Your task to perform on an android device: delete location history Image 0: 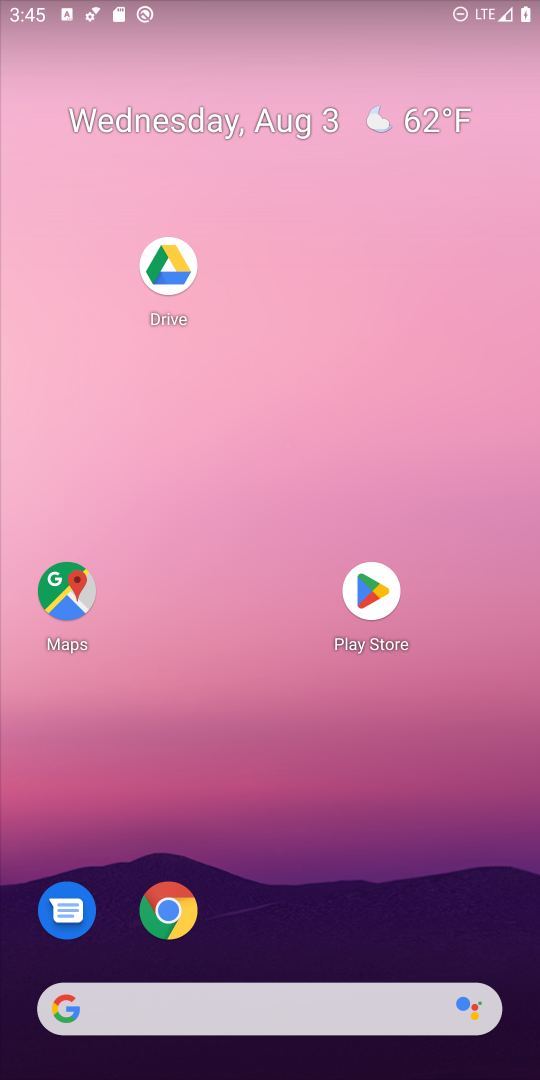
Step 0: drag from (385, 849) to (473, 2)
Your task to perform on an android device: delete location history Image 1: 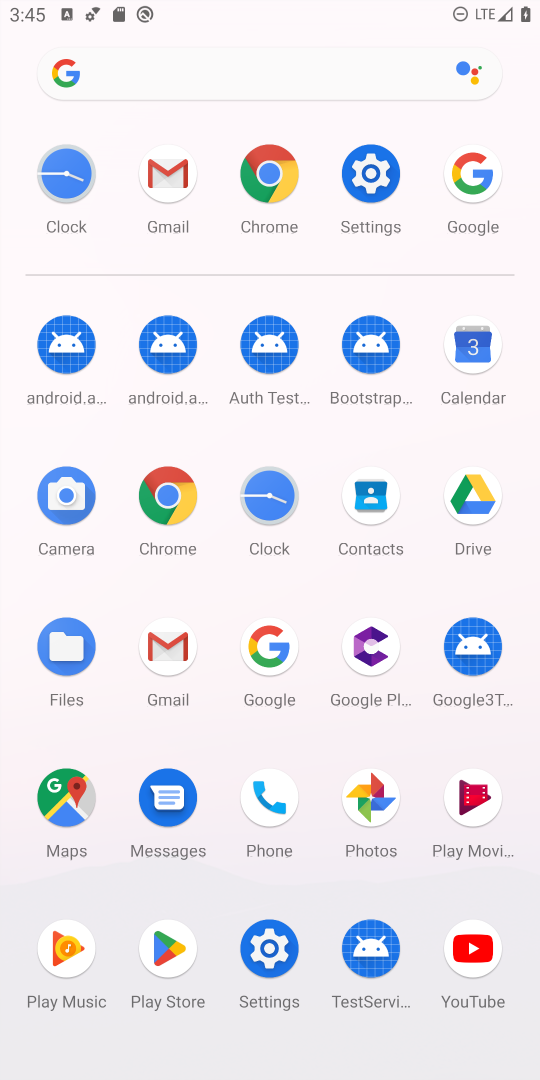
Step 1: click (57, 775)
Your task to perform on an android device: delete location history Image 2: 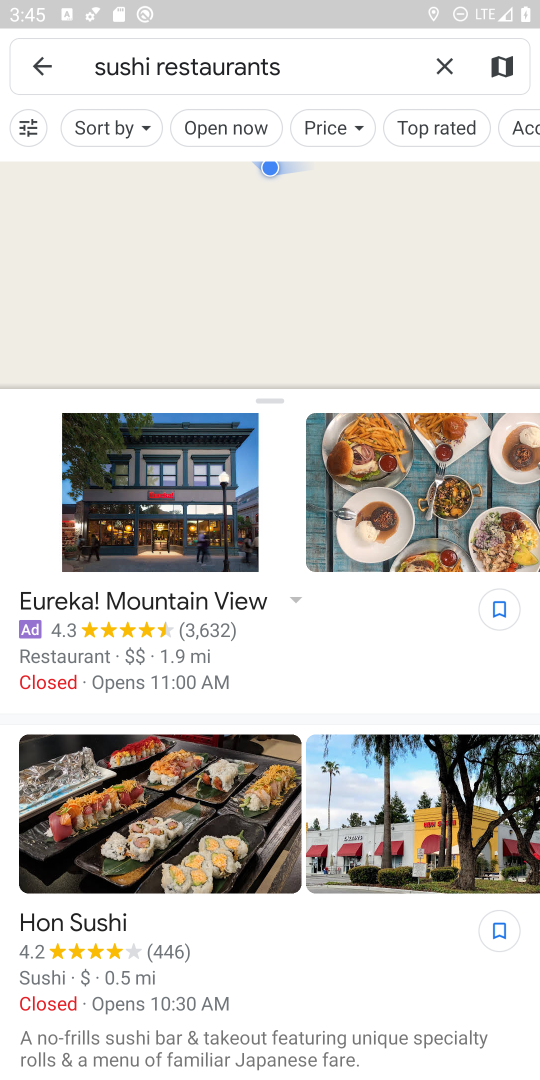
Step 2: press back button
Your task to perform on an android device: delete location history Image 3: 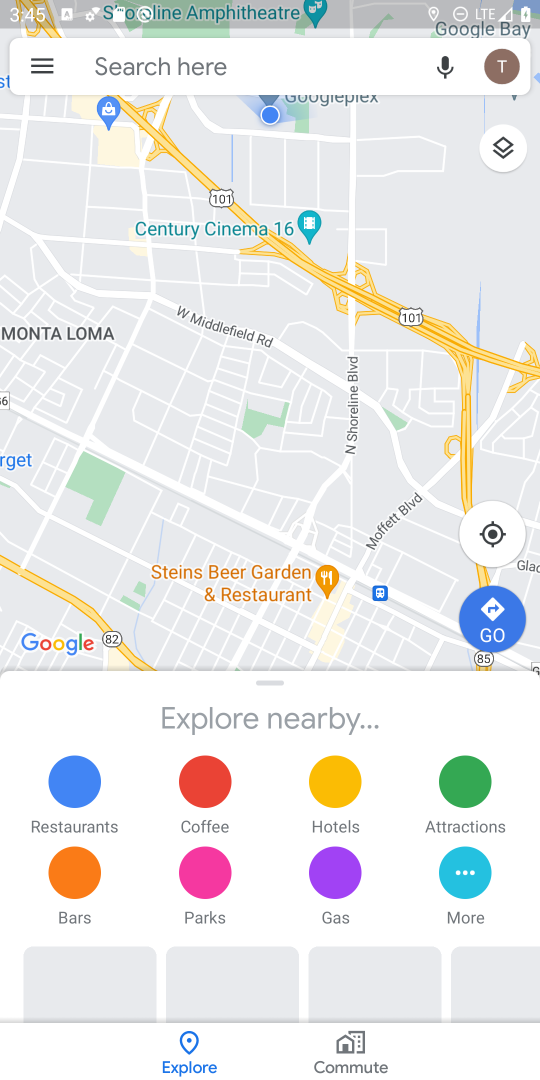
Step 3: click (42, 57)
Your task to perform on an android device: delete location history Image 4: 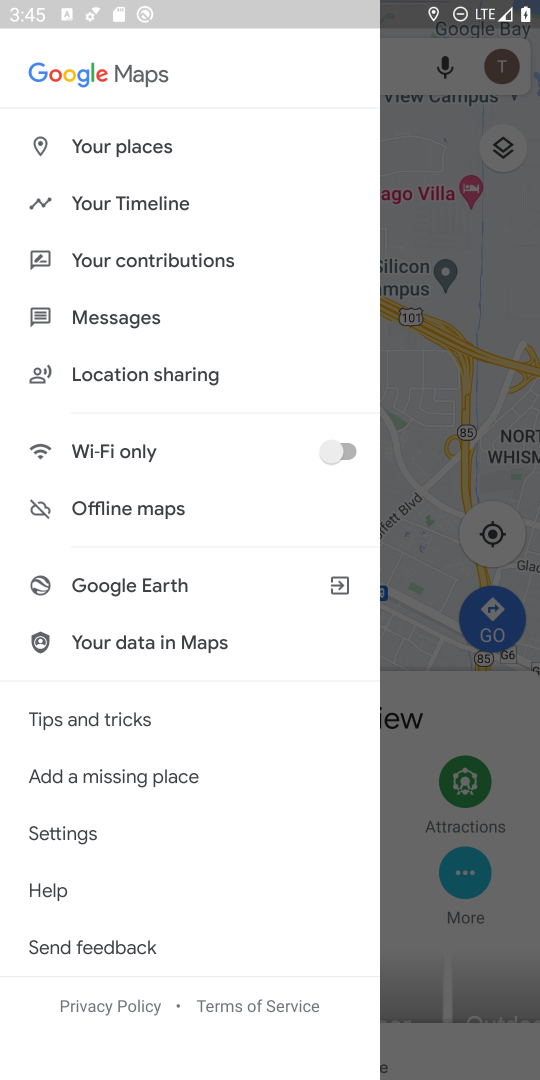
Step 4: click (163, 200)
Your task to perform on an android device: delete location history Image 5: 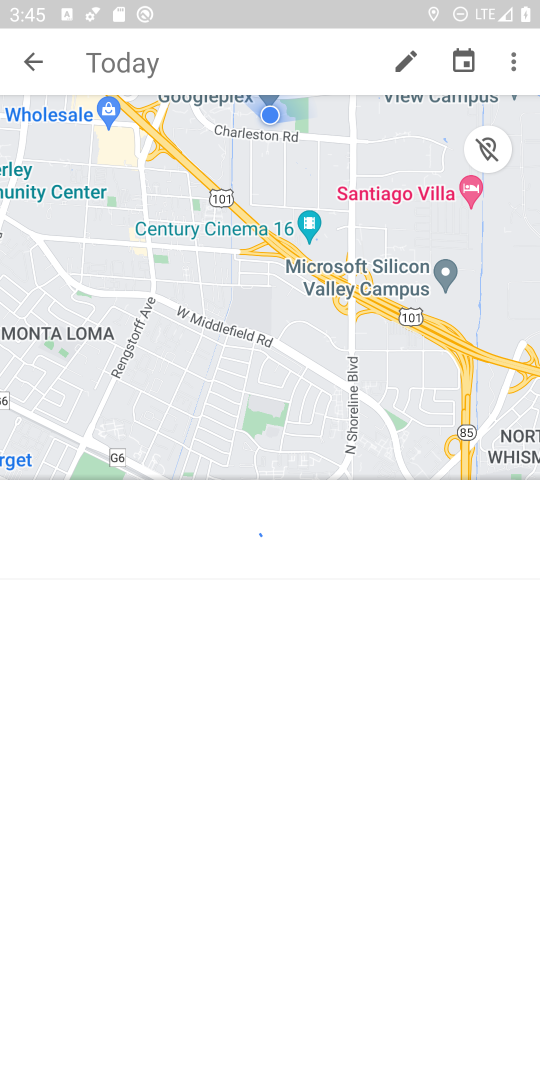
Step 5: click (514, 53)
Your task to perform on an android device: delete location history Image 6: 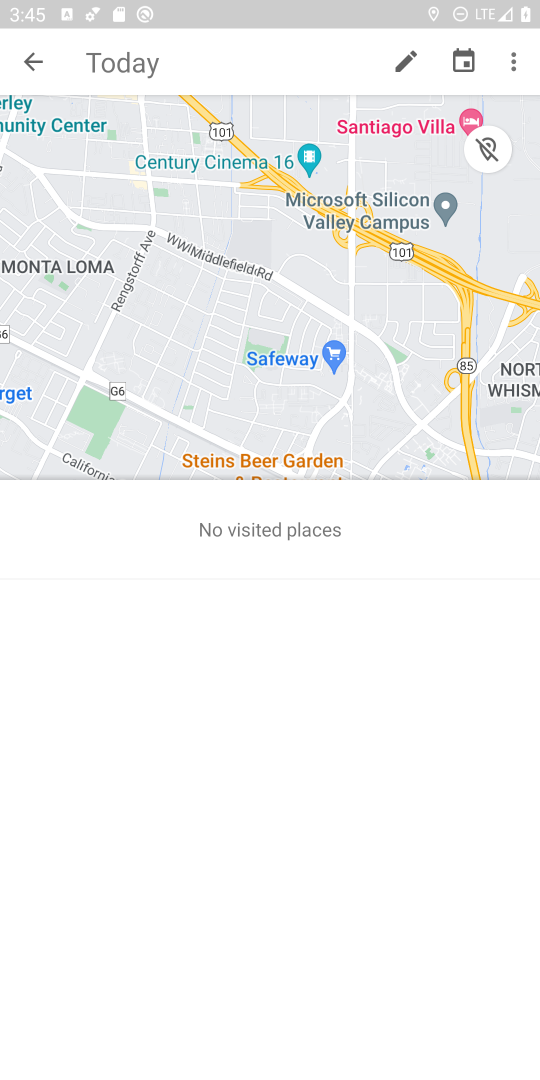
Step 6: click (520, 64)
Your task to perform on an android device: delete location history Image 7: 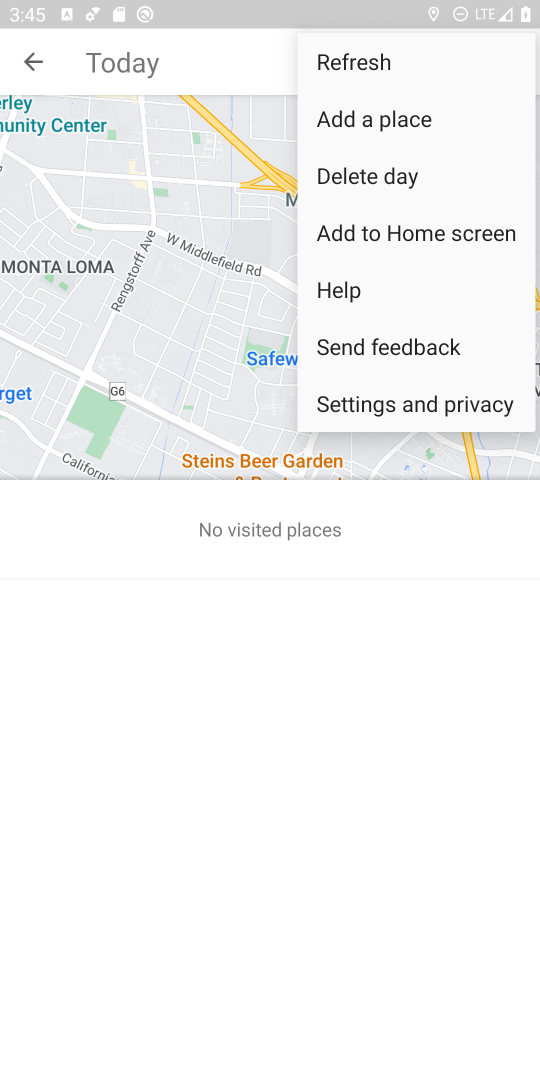
Step 7: click (426, 402)
Your task to perform on an android device: delete location history Image 8: 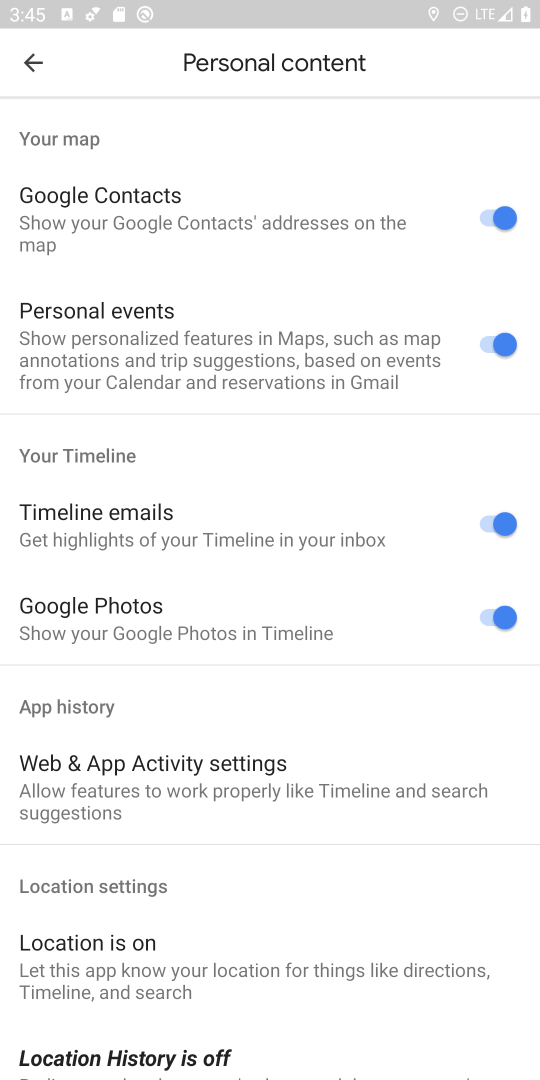
Step 8: drag from (203, 943) to (237, 202)
Your task to perform on an android device: delete location history Image 9: 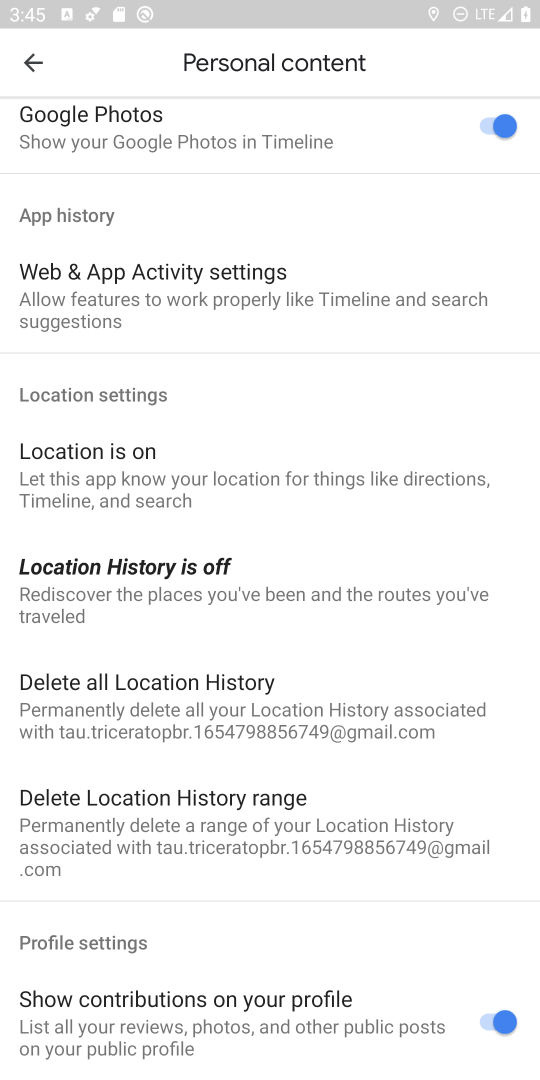
Step 9: click (247, 731)
Your task to perform on an android device: delete location history Image 10: 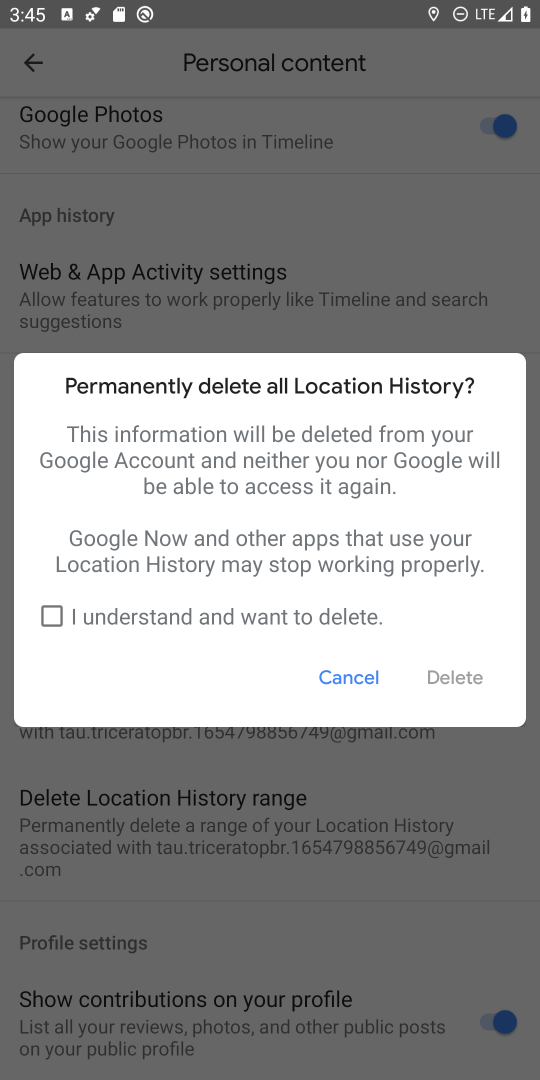
Step 10: click (62, 618)
Your task to perform on an android device: delete location history Image 11: 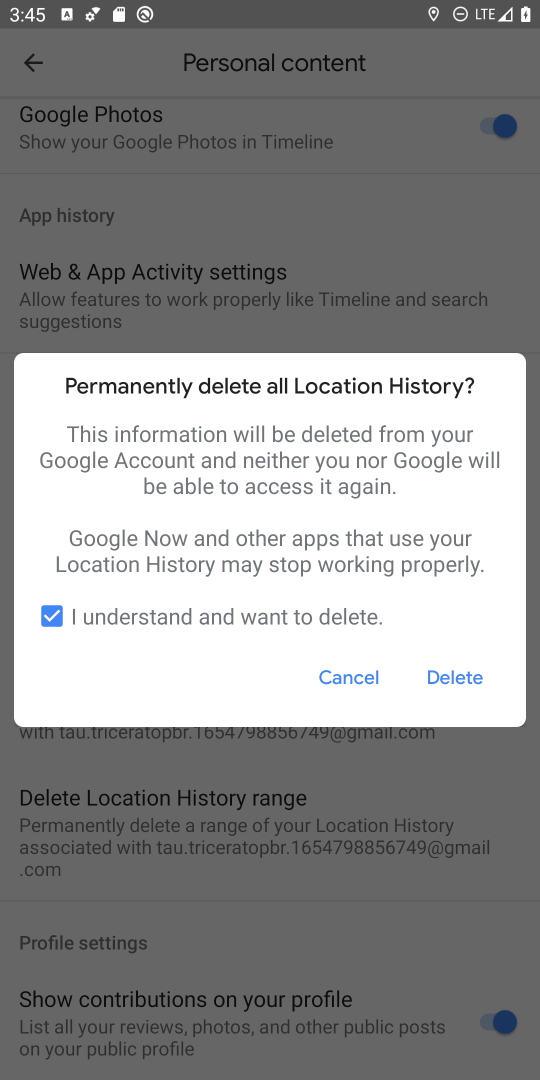
Step 11: click (455, 674)
Your task to perform on an android device: delete location history Image 12: 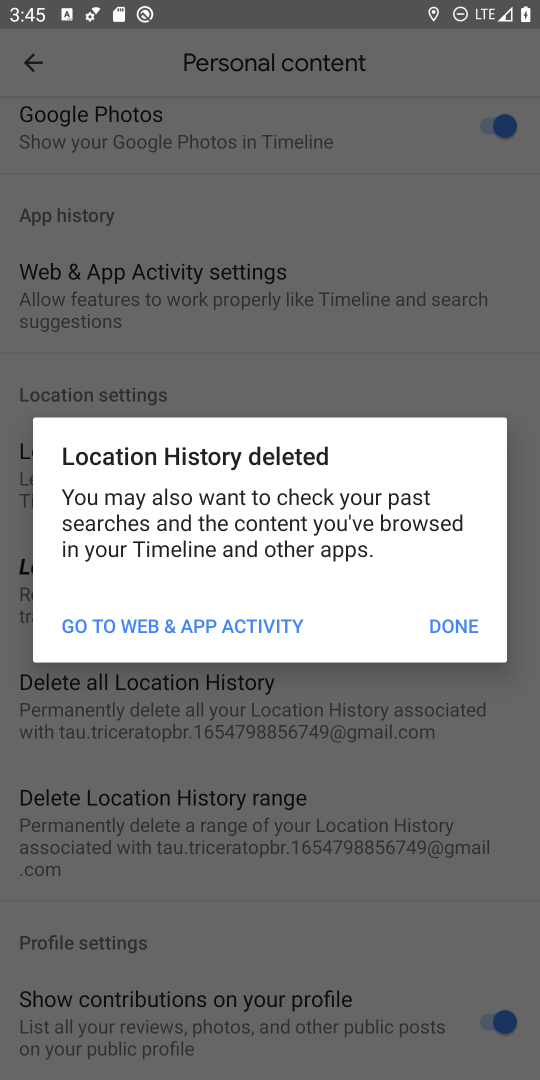
Step 12: task complete